Your task to perform on an android device: allow notifications from all sites in the chrome app Image 0: 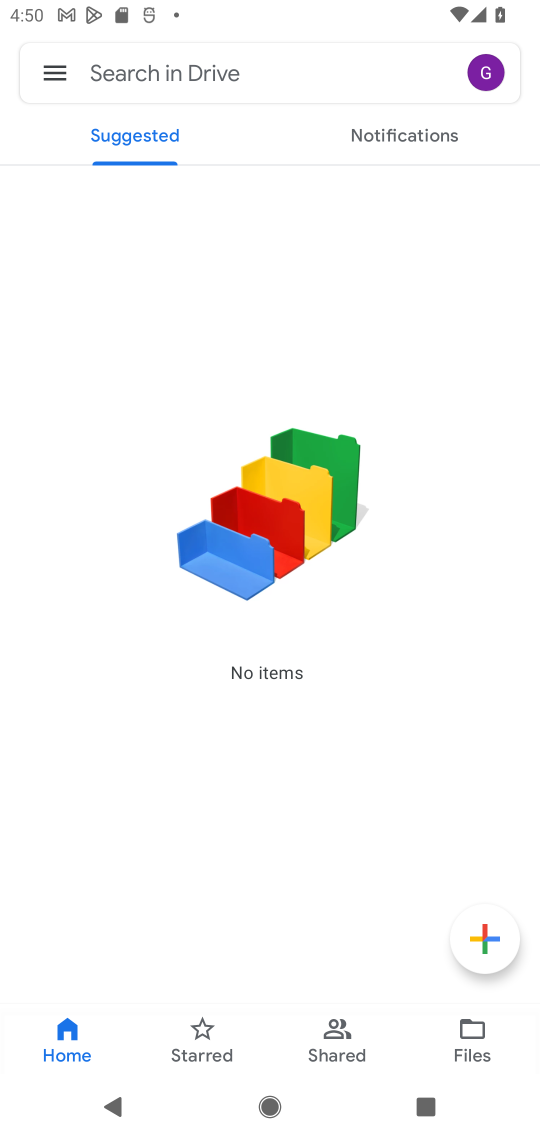
Step 0: press home button
Your task to perform on an android device: allow notifications from all sites in the chrome app Image 1: 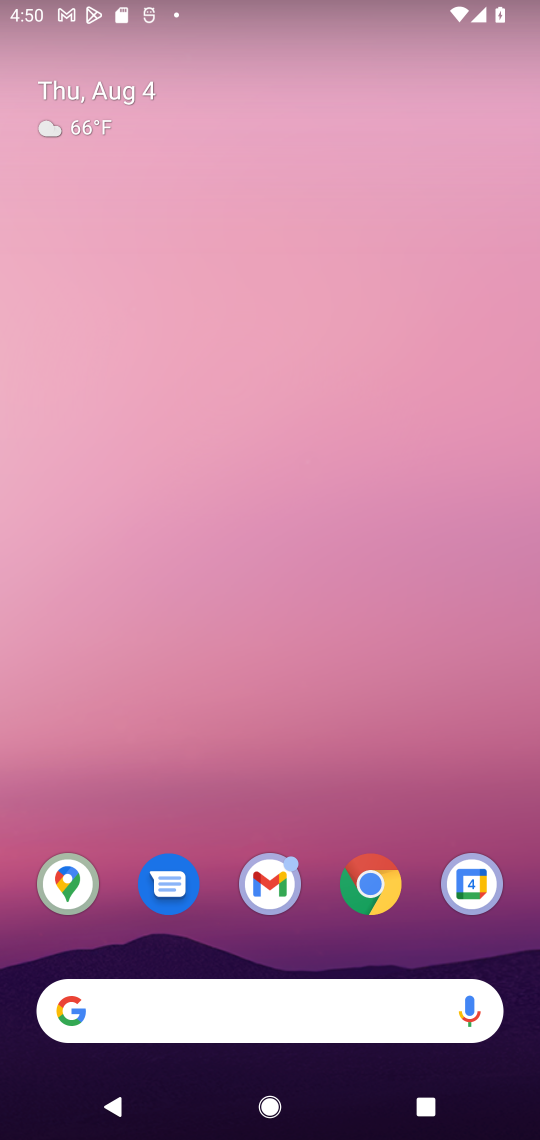
Step 1: click (362, 887)
Your task to perform on an android device: allow notifications from all sites in the chrome app Image 2: 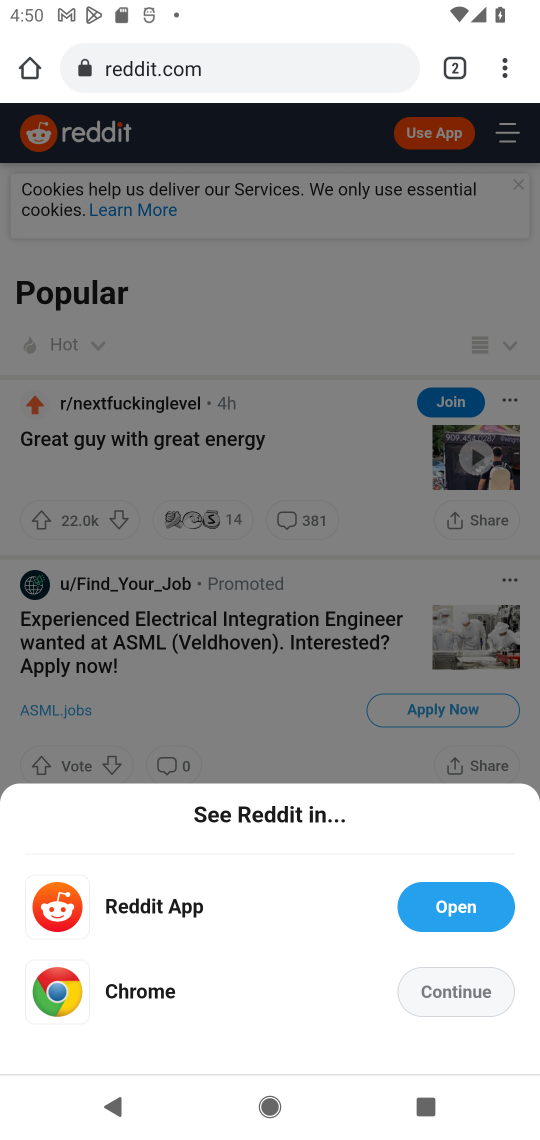
Step 2: click (498, 56)
Your task to perform on an android device: allow notifications from all sites in the chrome app Image 3: 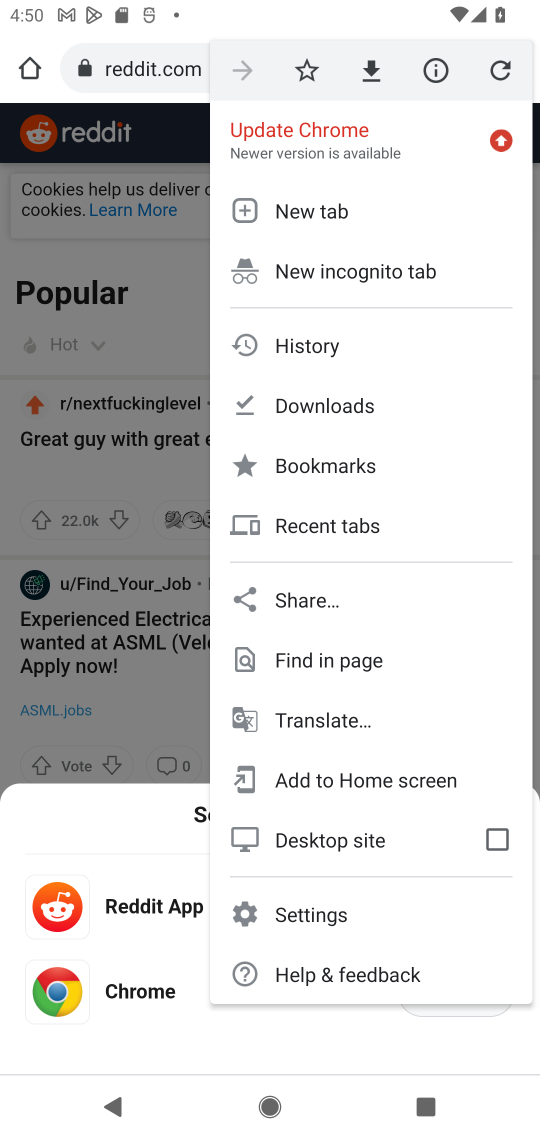
Step 3: click (281, 895)
Your task to perform on an android device: allow notifications from all sites in the chrome app Image 4: 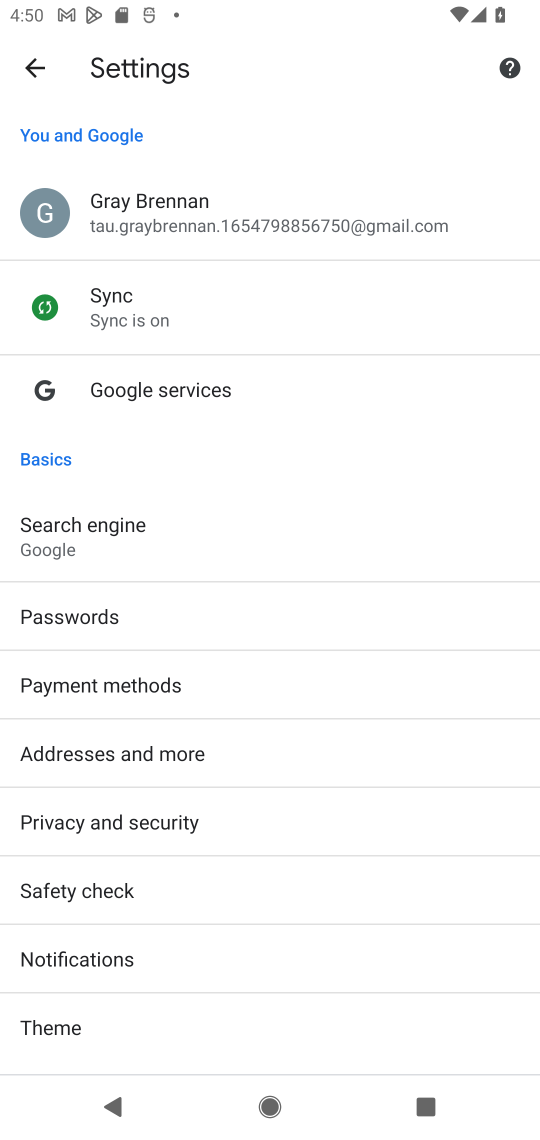
Step 4: task complete